Your task to perform on an android device: What's the weather going to be tomorrow? Image 0: 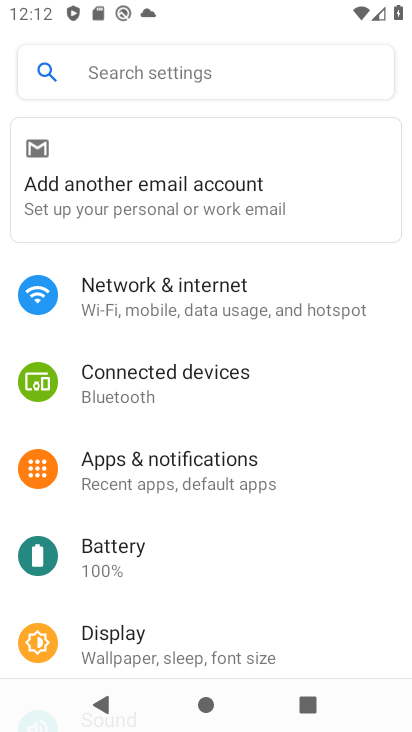
Step 0: type "weather going to be tomorrow?"
Your task to perform on an android device: What's the weather going to be tomorrow? Image 1: 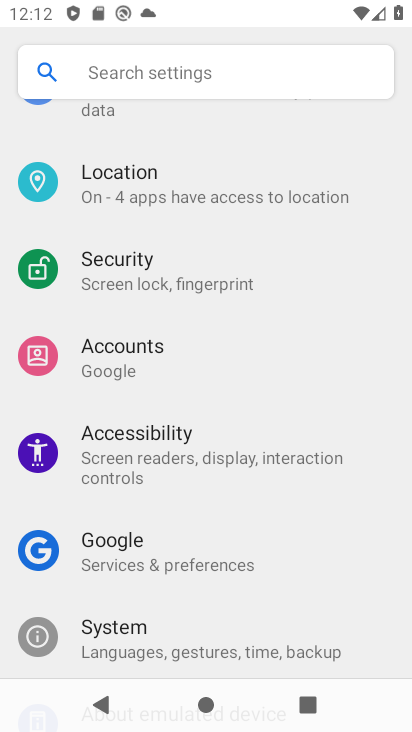
Step 1: press home button
Your task to perform on an android device: What's the weather going to be tomorrow? Image 2: 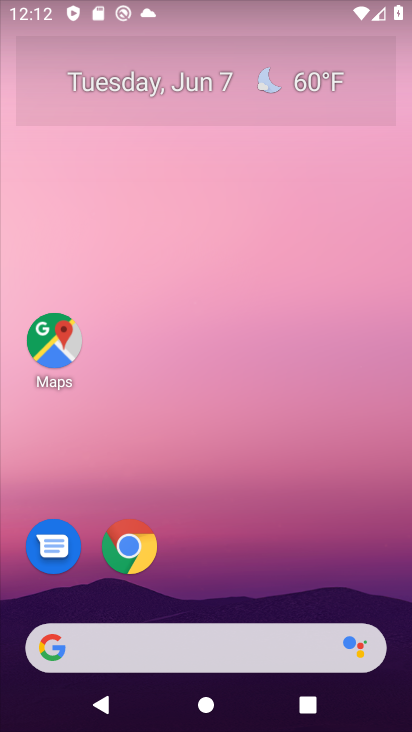
Step 2: click (238, 647)
Your task to perform on an android device: What's the weather going to be tomorrow? Image 3: 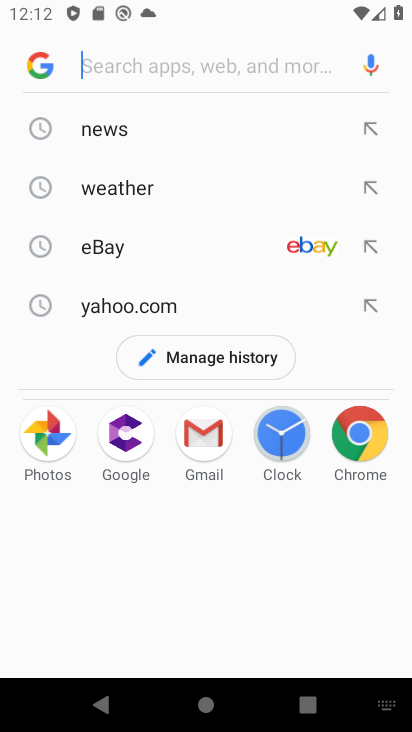
Step 3: type "weather going to be tomorrow?"
Your task to perform on an android device: What's the weather going to be tomorrow? Image 4: 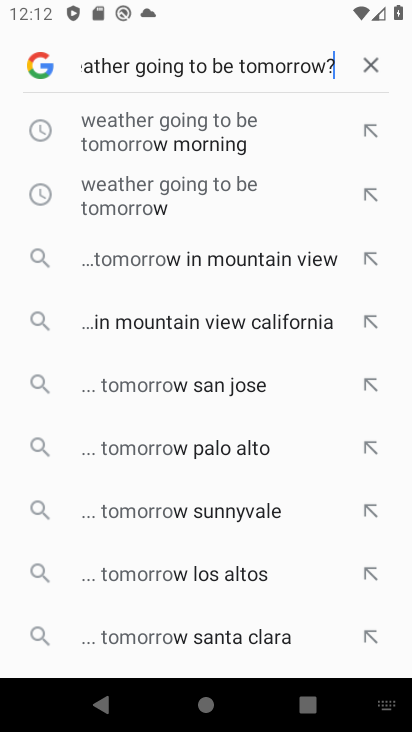
Step 4: type ""
Your task to perform on an android device: What's the weather going to be tomorrow? Image 5: 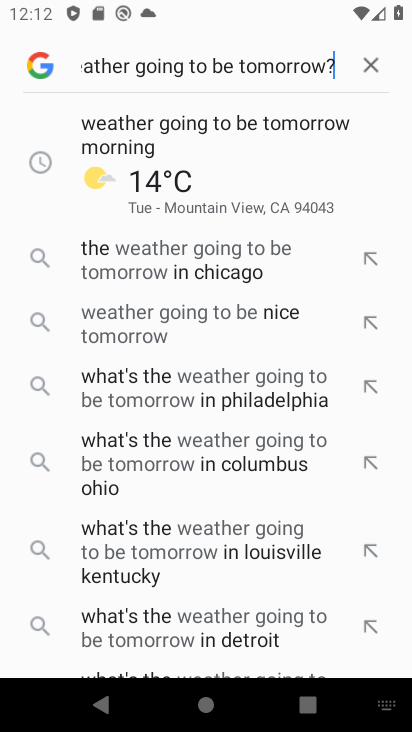
Step 5: click (218, 111)
Your task to perform on an android device: What's the weather going to be tomorrow? Image 6: 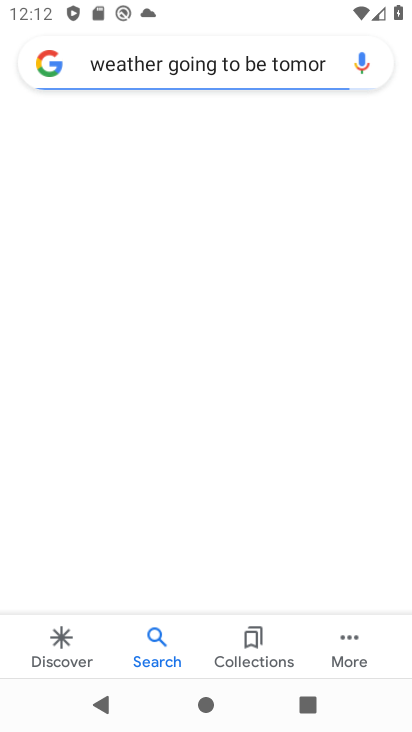
Step 6: task complete